Your task to perform on an android device: turn on improve location accuracy Image 0: 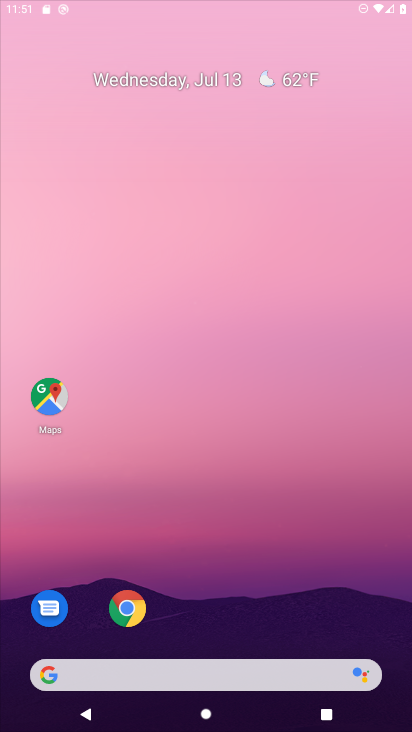
Step 0: drag from (228, 451) to (227, 131)
Your task to perform on an android device: turn on improve location accuracy Image 1: 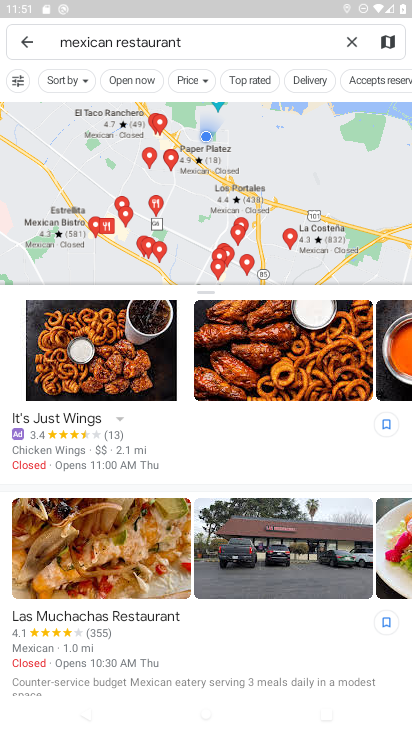
Step 1: press home button
Your task to perform on an android device: turn on improve location accuracy Image 2: 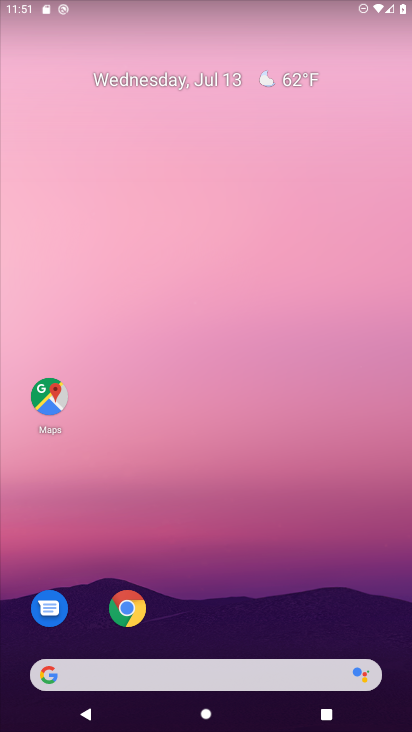
Step 2: drag from (236, 700) to (229, 236)
Your task to perform on an android device: turn on improve location accuracy Image 3: 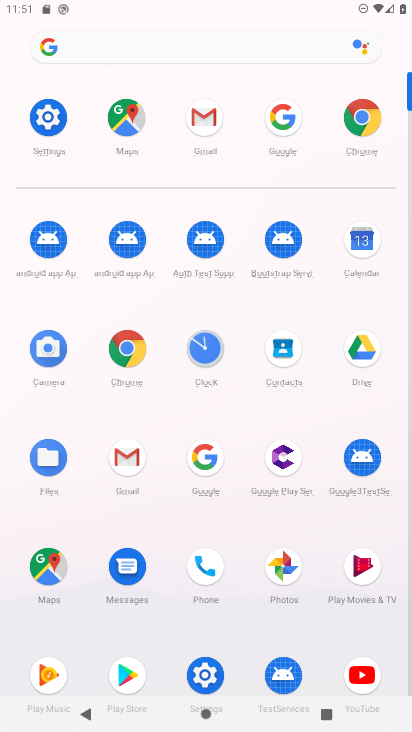
Step 3: click (47, 109)
Your task to perform on an android device: turn on improve location accuracy Image 4: 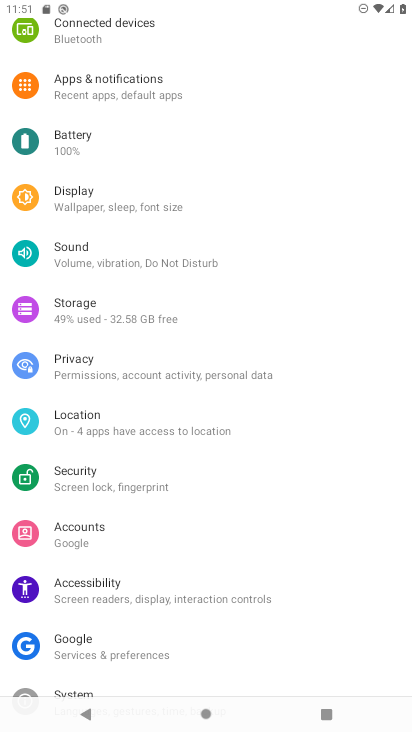
Step 4: click (100, 417)
Your task to perform on an android device: turn on improve location accuracy Image 5: 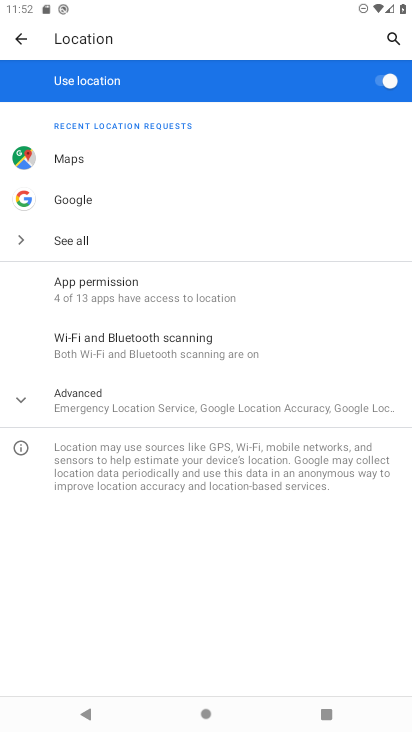
Step 5: click (95, 405)
Your task to perform on an android device: turn on improve location accuracy Image 6: 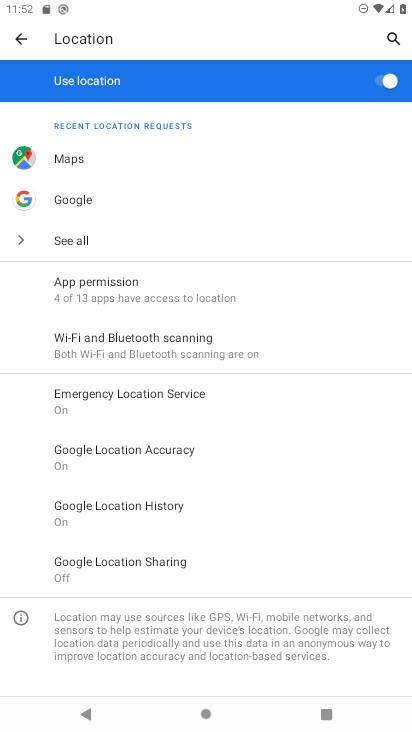
Step 6: click (135, 452)
Your task to perform on an android device: turn on improve location accuracy Image 7: 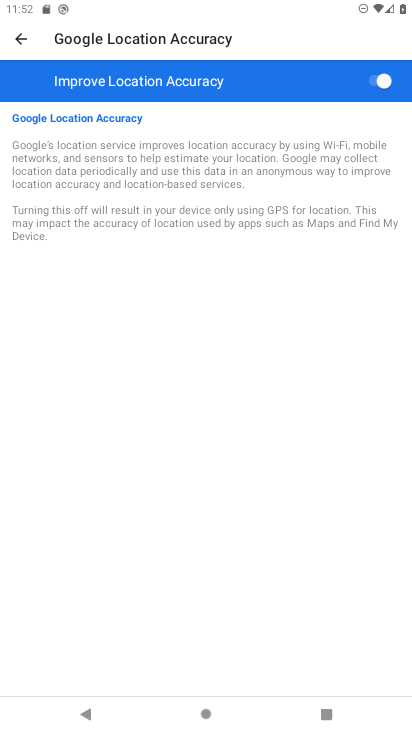
Step 7: task complete